Your task to perform on an android device: Do I have any events this weekend? Image 0: 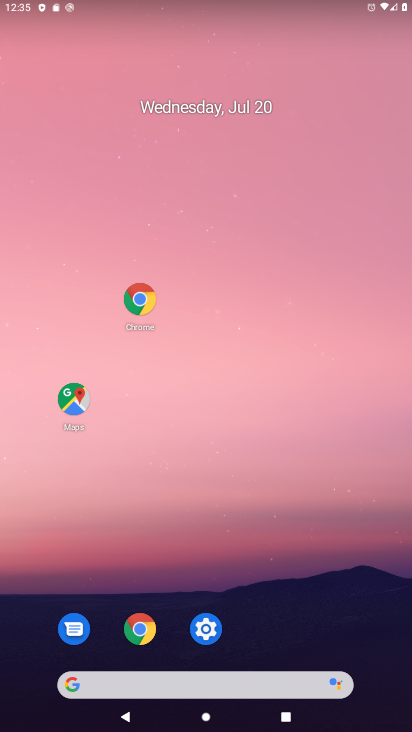
Step 0: drag from (252, 673) to (253, 242)
Your task to perform on an android device: Do I have any events this weekend? Image 1: 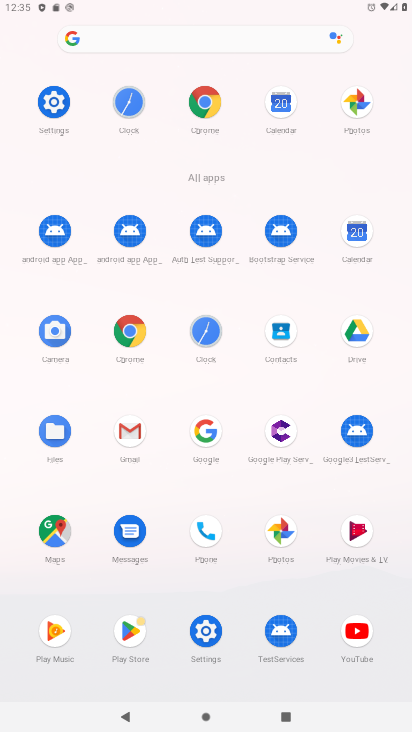
Step 1: drag from (251, 662) to (251, 268)
Your task to perform on an android device: Do I have any events this weekend? Image 2: 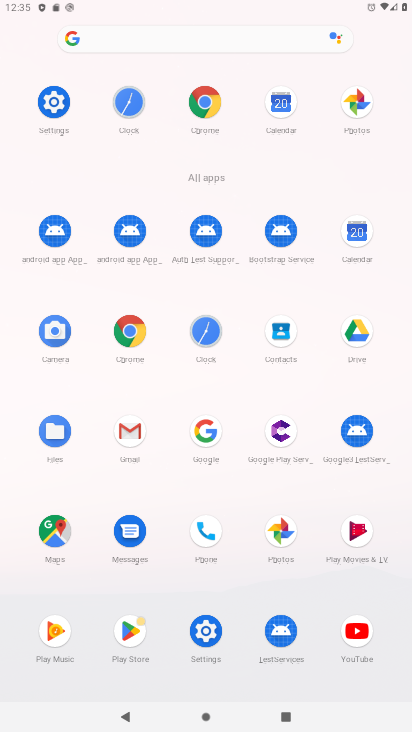
Step 2: click (358, 235)
Your task to perform on an android device: Do I have any events this weekend? Image 3: 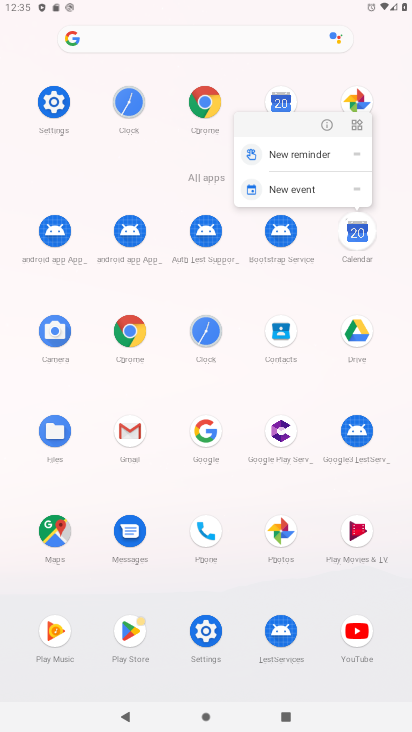
Step 3: click (358, 235)
Your task to perform on an android device: Do I have any events this weekend? Image 4: 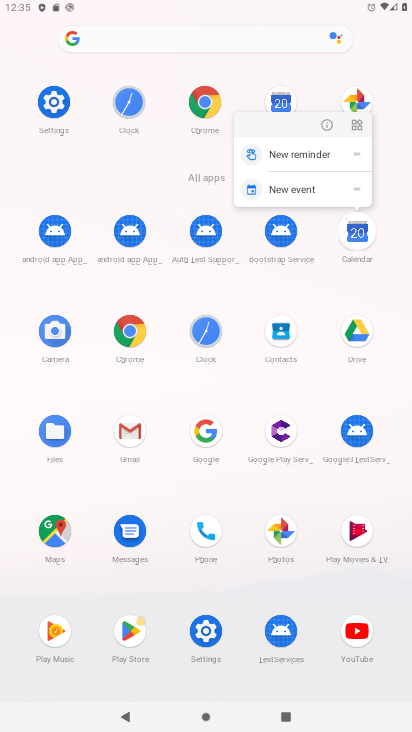
Step 4: click (358, 235)
Your task to perform on an android device: Do I have any events this weekend? Image 5: 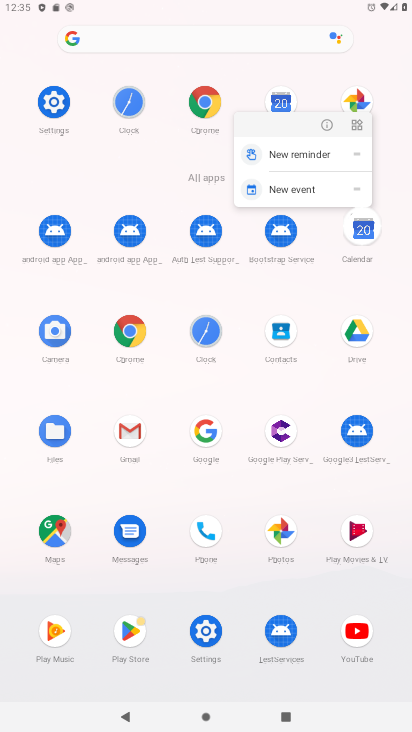
Step 5: click (367, 229)
Your task to perform on an android device: Do I have any events this weekend? Image 6: 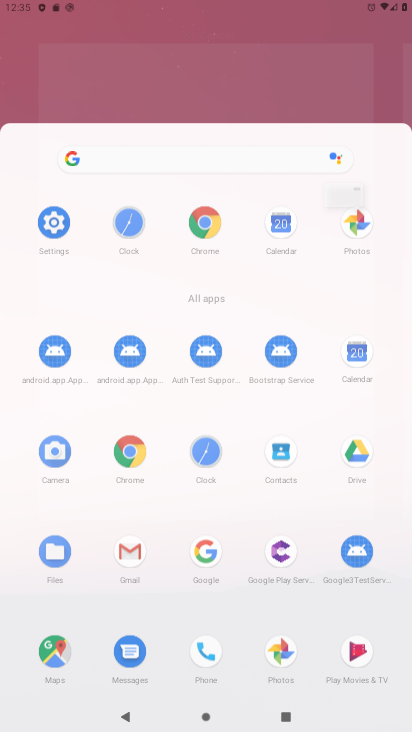
Step 6: click (362, 231)
Your task to perform on an android device: Do I have any events this weekend? Image 7: 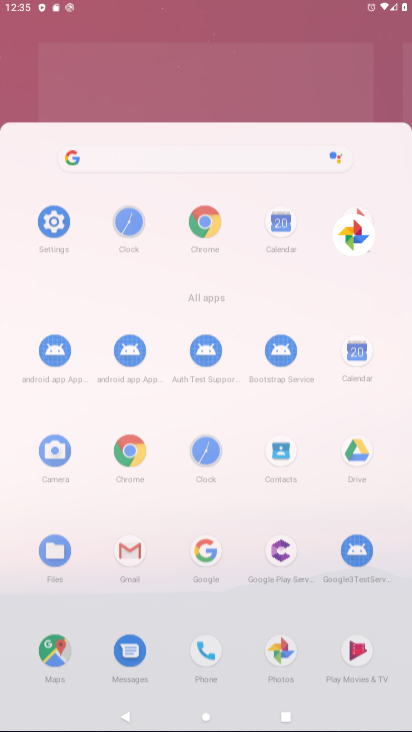
Step 7: click (362, 237)
Your task to perform on an android device: Do I have any events this weekend? Image 8: 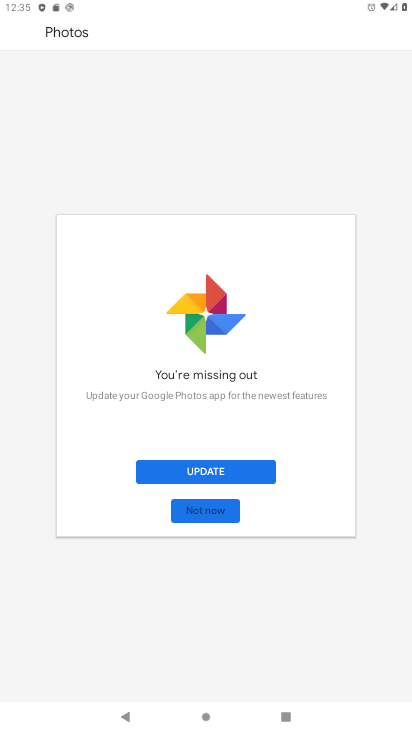
Step 8: press back button
Your task to perform on an android device: Do I have any events this weekend? Image 9: 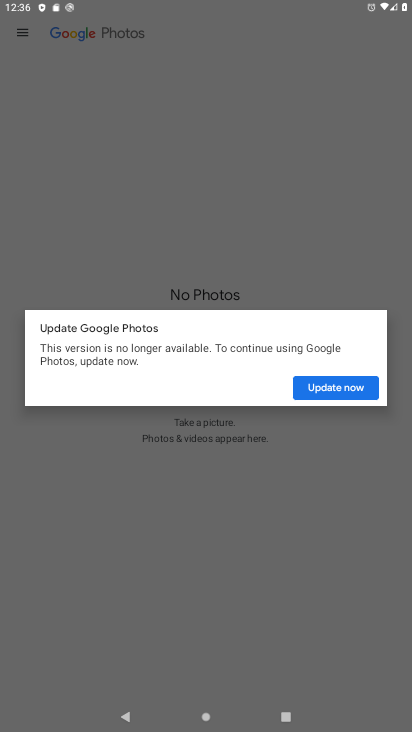
Step 9: press home button
Your task to perform on an android device: Do I have any events this weekend? Image 10: 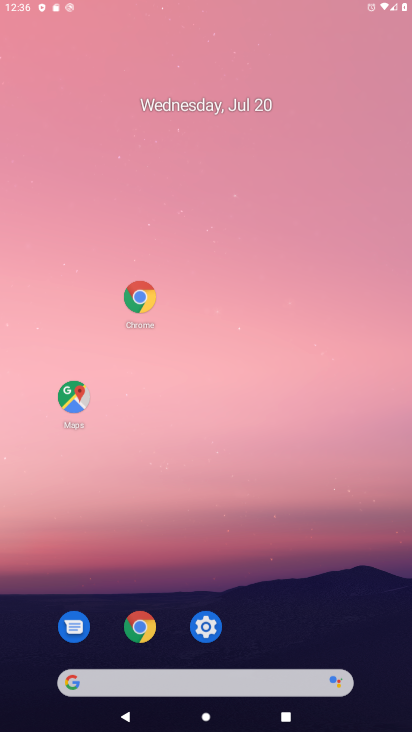
Step 10: click (281, 184)
Your task to perform on an android device: Do I have any events this weekend? Image 11: 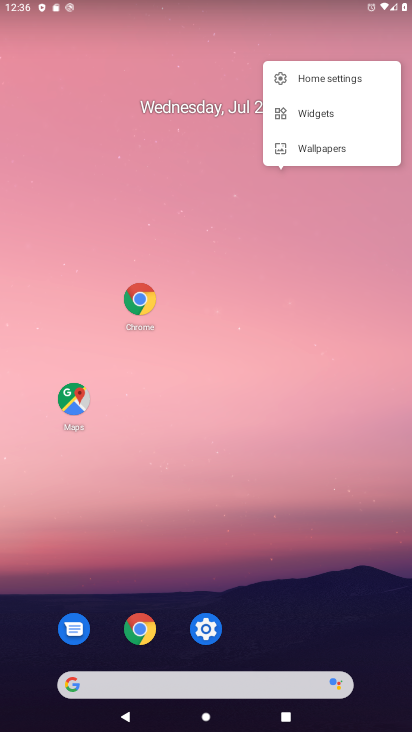
Step 11: drag from (253, 658) to (223, 146)
Your task to perform on an android device: Do I have any events this weekend? Image 12: 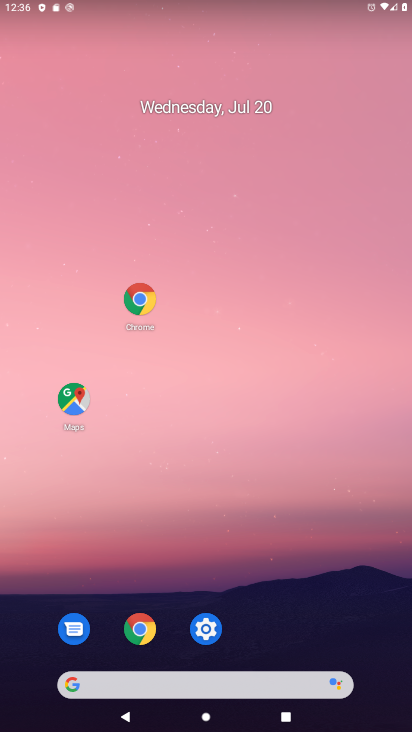
Step 12: click (221, 164)
Your task to perform on an android device: Do I have any events this weekend? Image 13: 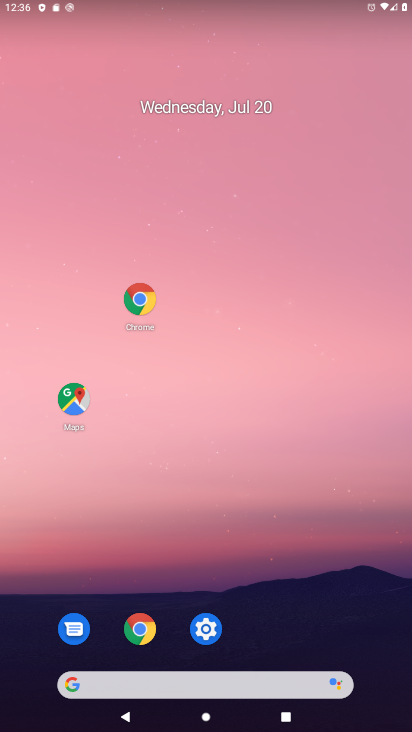
Step 13: drag from (193, 549) to (136, 142)
Your task to perform on an android device: Do I have any events this weekend? Image 14: 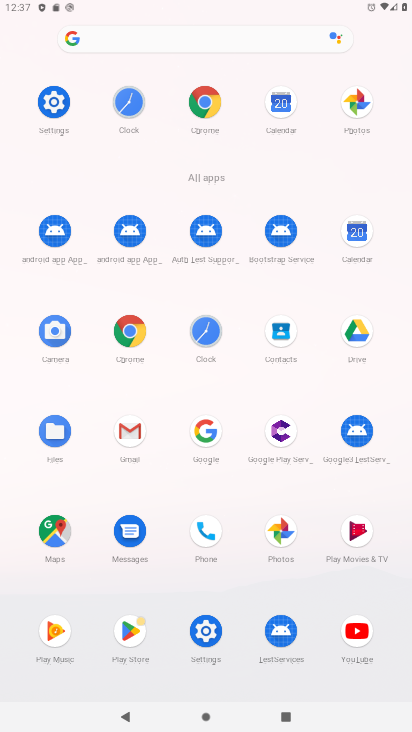
Step 14: click (353, 235)
Your task to perform on an android device: Do I have any events this weekend? Image 15: 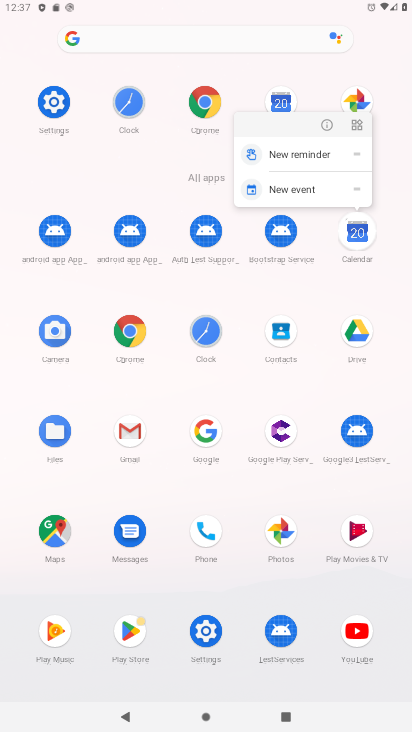
Step 15: click (356, 235)
Your task to perform on an android device: Do I have any events this weekend? Image 16: 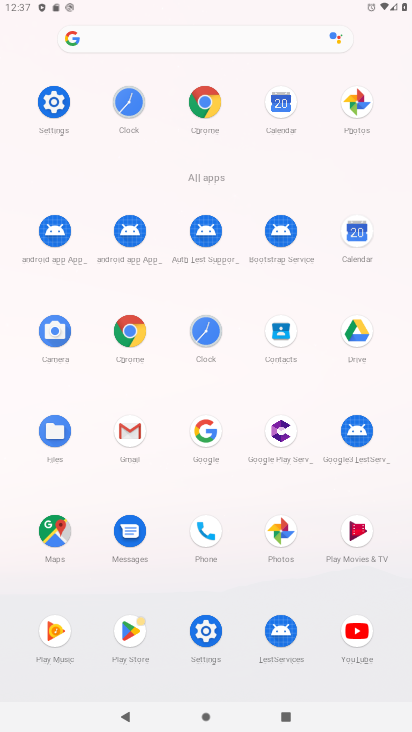
Step 16: click (356, 237)
Your task to perform on an android device: Do I have any events this weekend? Image 17: 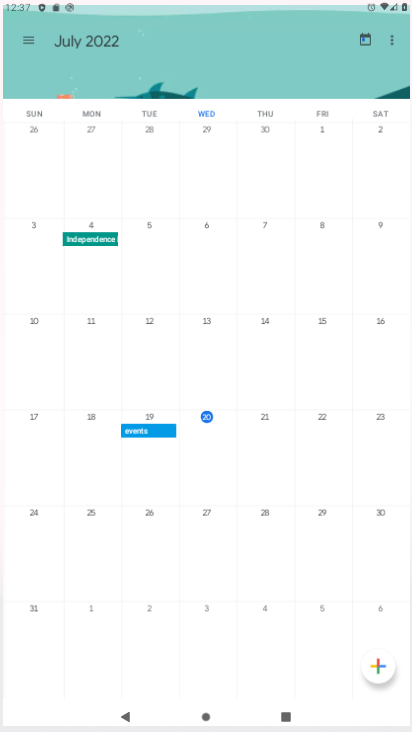
Step 17: click (364, 228)
Your task to perform on an android device: Do I have any events this weekend? Image 18: 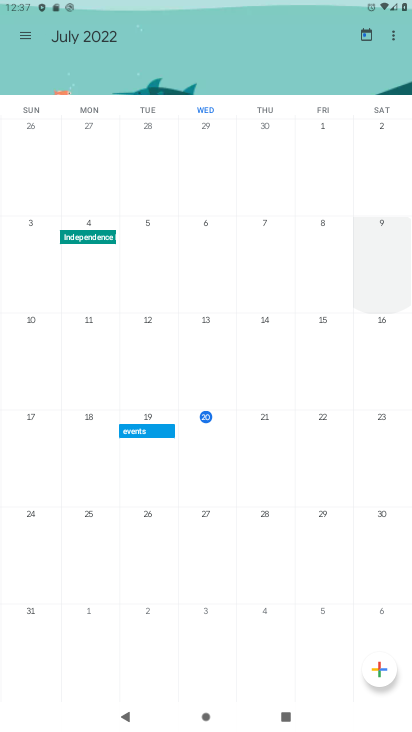
Step 18: click (364, 228)
Your task to perform on an android device: Do I have any events this weekend? Image 19: 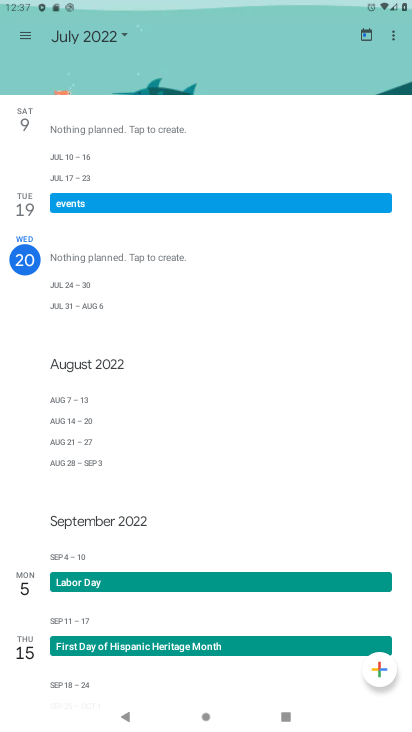
Step 19: task complete